Your task to perform on an android device: choose inbox layout in the gmail app Image 0: 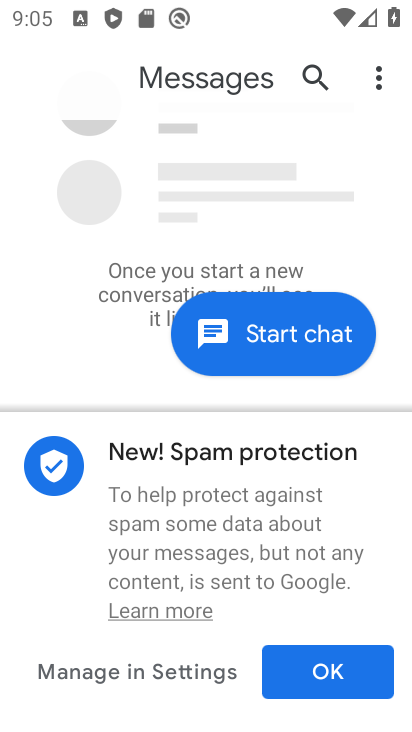
Step 0: press home button
Your task to perform on an android device: choose inbox layout in the gmail app Image 1: 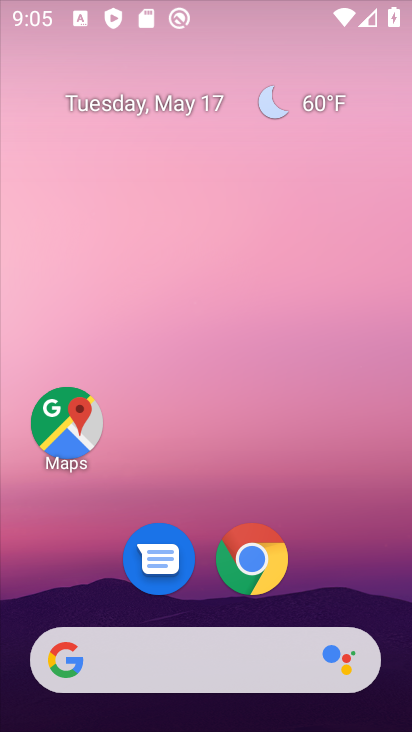
Step 1: drag from (278, 532) to (270, 52)
Your task to perform on an android device: choose inbox layout in the gmail app Image 2: 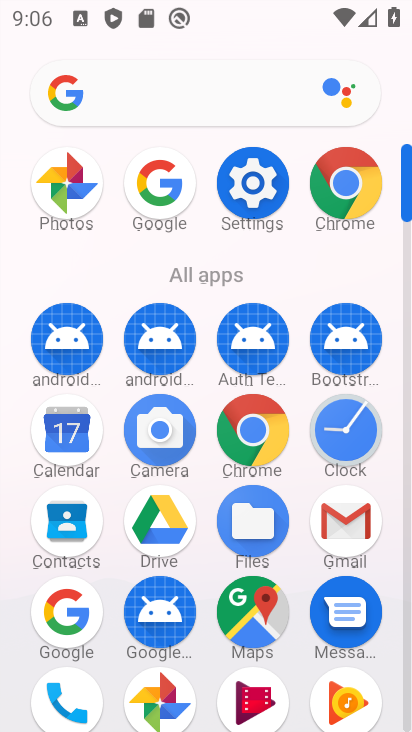
Step 2: click (328, 534)
Your task to perform on an android device: choose inbox layout in the gmail app Image 3: 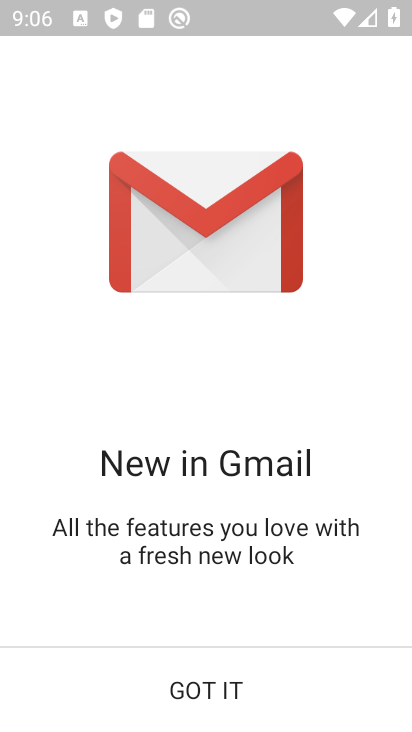
Step 3: click (243, 704)
Your task to perform on an android device: choose inbox layout in the gmail app Image 4: 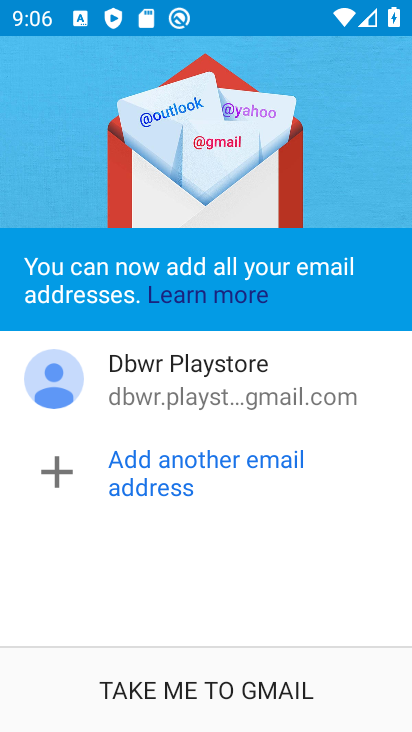
Step 4: click (273, 705)
Your task to perform on an android device: choose inbox layout in the gmail app Image 5: 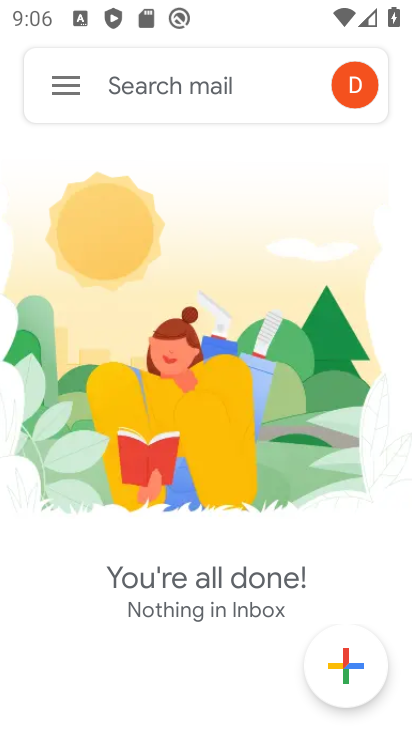
Step 5: click (73, 86)
Your task to perform on an android device: choose inbox layout in the gmail app Image 6: 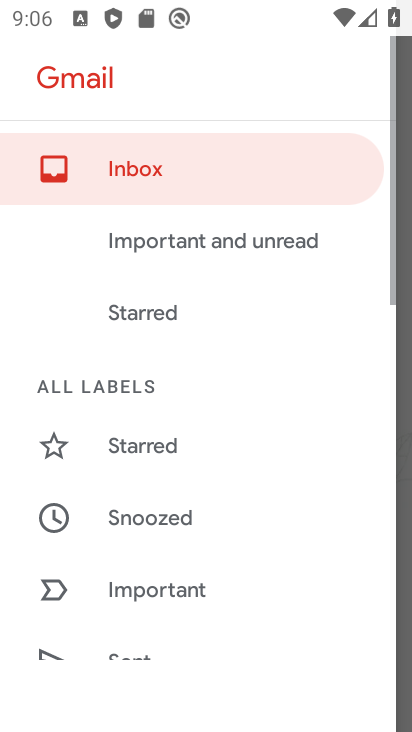
Step 6: drag from (222, 406) to (281, 6)
Your task to perform on an android device: choose inbox layout in the gmail app Image 7: 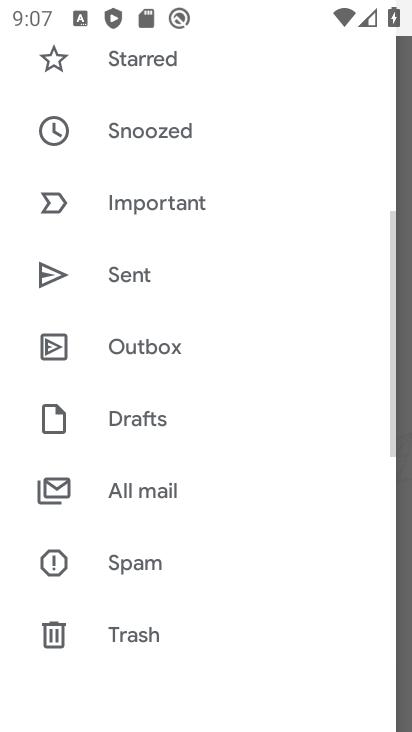
Step 7: drag from (146, 576) to (207, 155)
Your task to perform on an android device: choose inbox layout in the gmail app Image 8: 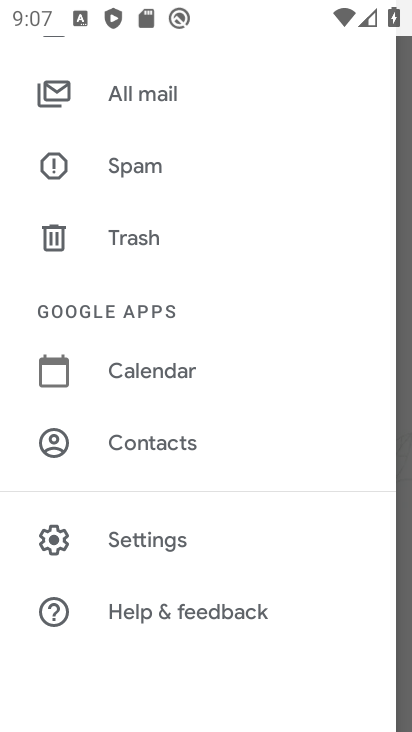
Step 8: click (135, 531)
Your task to perform on an android device: choose inbox layout in the gmail app Image 9: 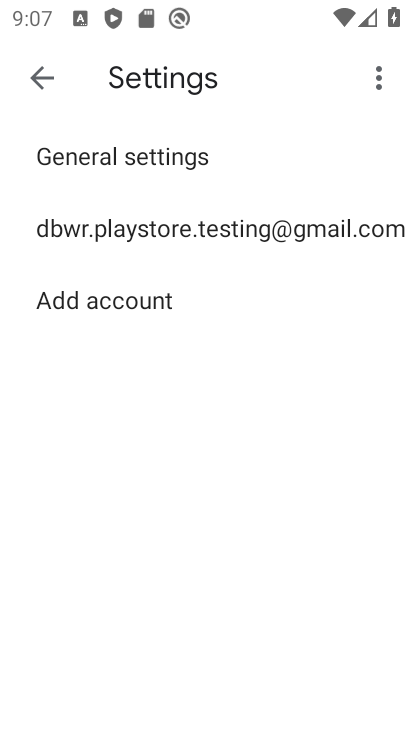
Step 9: click (143, 160)
Your task to perform on an android device: choose inbox layout in the gmail app Image 10: 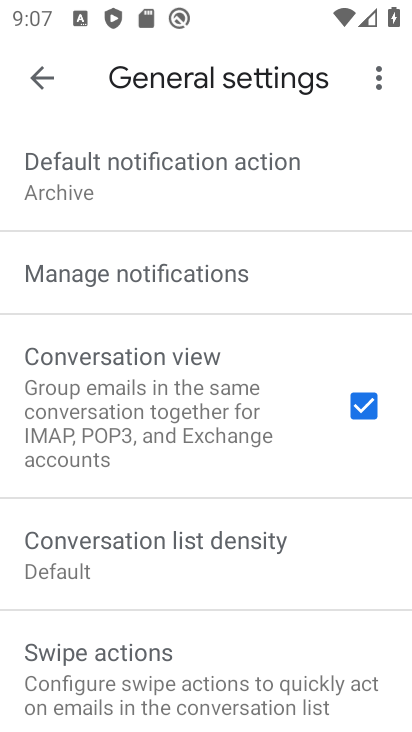
Step 10: task complete